Your task to perform on an android device: find photos in the google photos app Image 0: 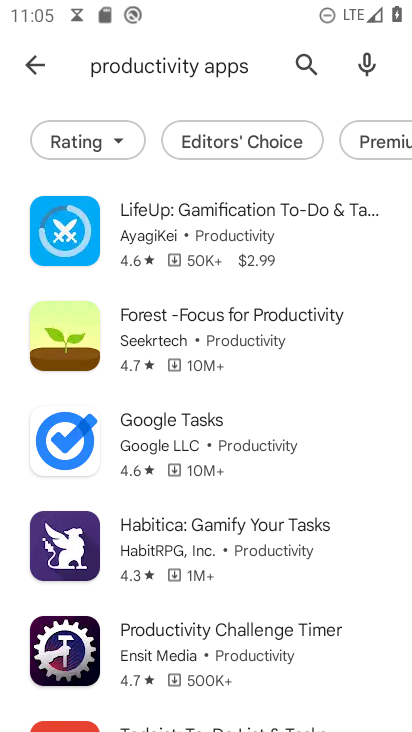
Step 0: press home button
Your task to perform on an android device: find photos in the google photos app Image 1: 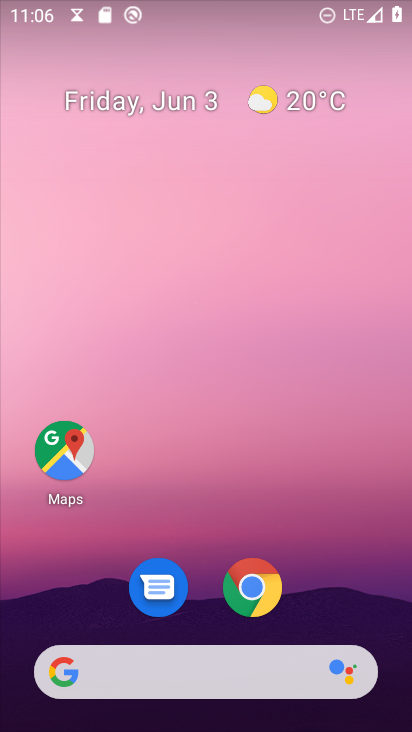
Step 1: drag from (320, 562) to (206, 52)
Your task to perform on an android device: find photos in the google photos app Image 2: 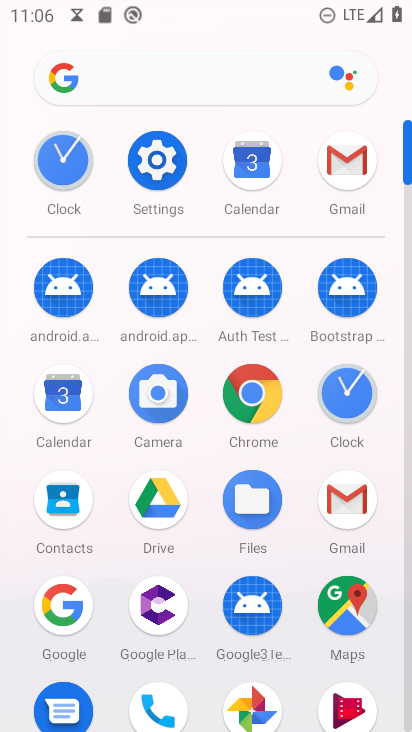
Step 2: click (272, 696)
Your task to perform on an android device: find photos in the google photos app Image 3: 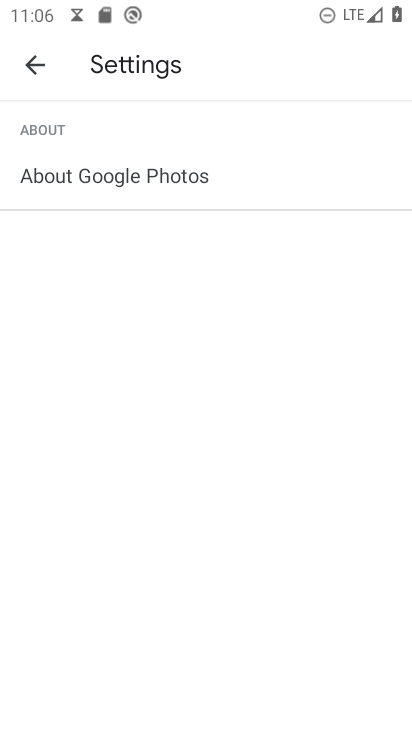
Step 3: click (36, 79)
Your task to perform on an android device: find photos in the google photos app Image 4: 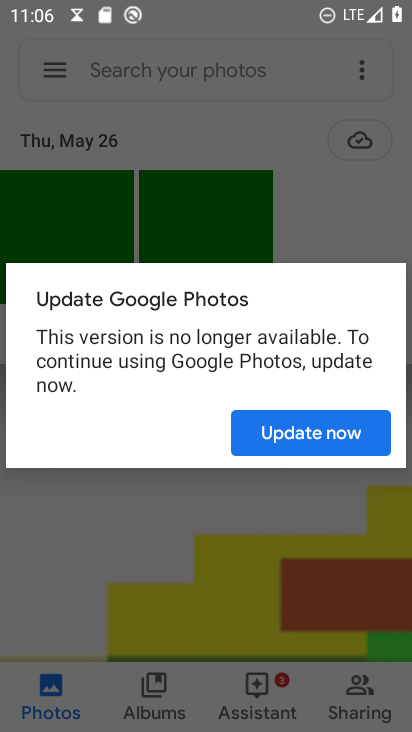
Step 4: click (267, 434)
Your task to perform on an android device: find photos in the google photos app Image 5: 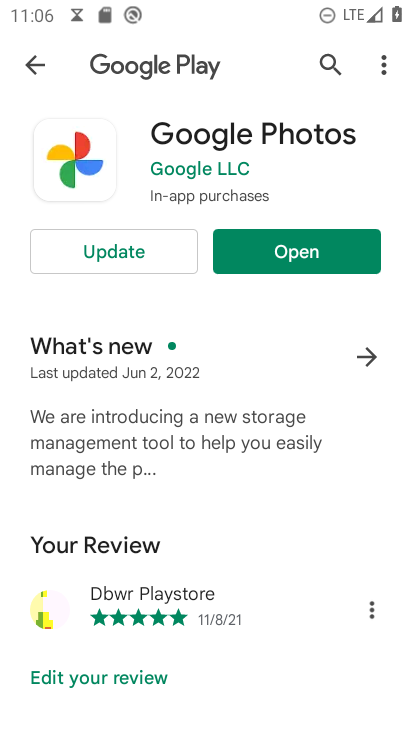
Step 5: click (276, 245)
Your task to perform on an android device: find photos in the google photos app Image 6: 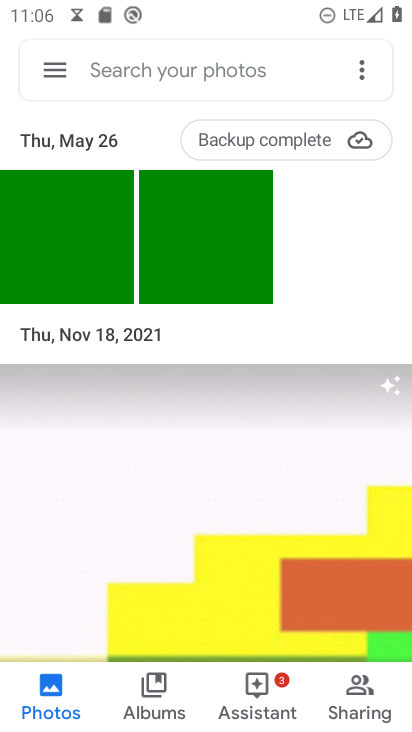
Step 6: task complete